Your task to perform on an android device: turn on translation in the chrome app Image 0: 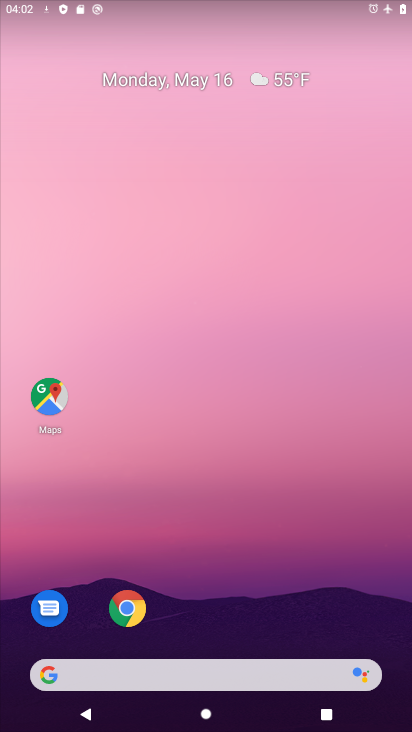
Step 0: click (122, 612)
Your task to perform on an android device: turn on translation in the chrome app Image 1: 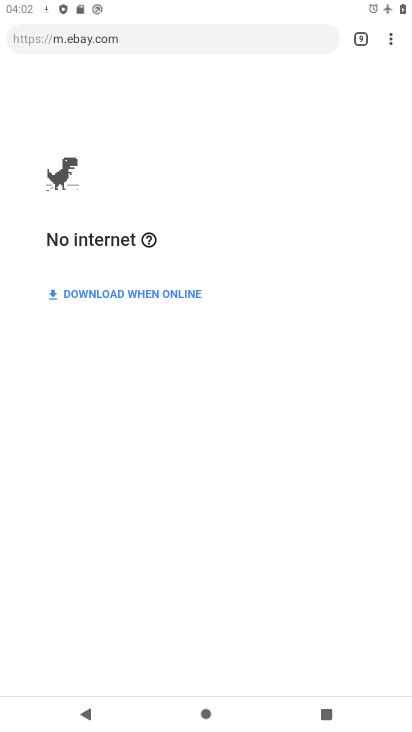
Step 1: click (401, 39)
Your task to perform on an android device: turn on translation in the chrome app Image 2: 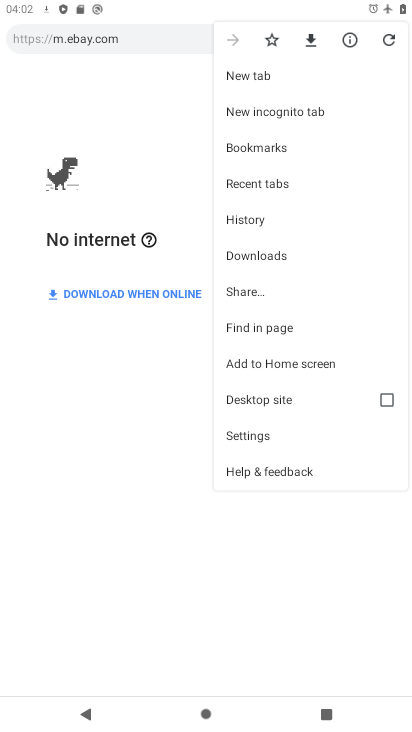
Step 2: click (256, 440)
Your task to perform on an android device: turn on translation in the chrome app Image 3: 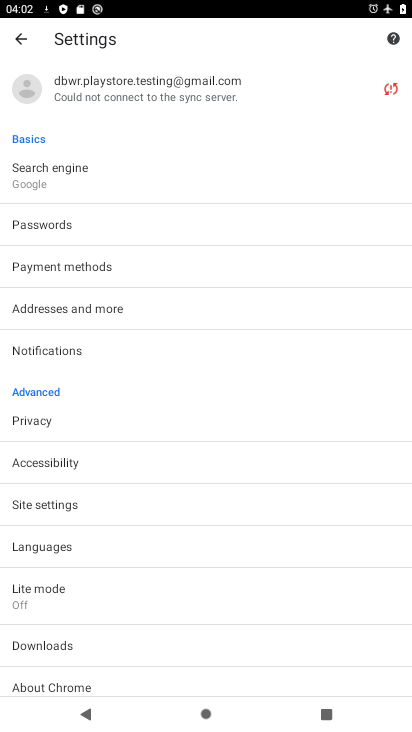
Step 3: click (95, 550)
Your task to perform on an android device: turn on translation in the chrome app Image 4: 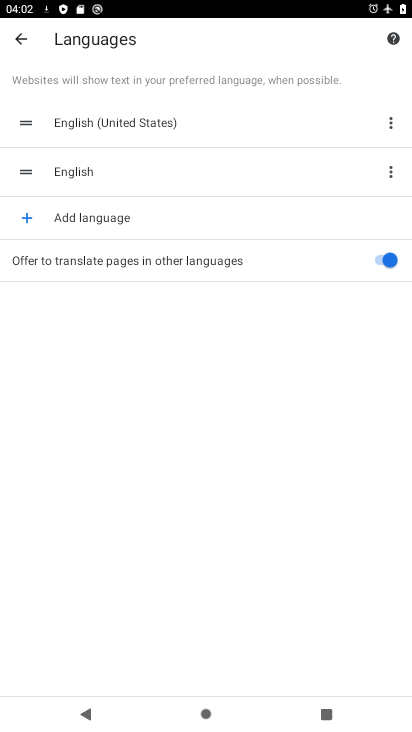
Step 4: task complete